Your task to perform on an android device: Open calendar and show me the fourth week of next month Image 0: 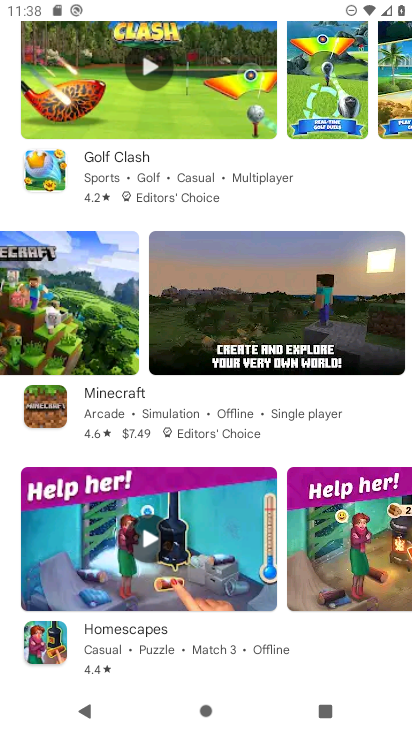
Step 0: press home button
Your task to perform on an android device: Open calendar and show me the fourth week of next month Image 1: 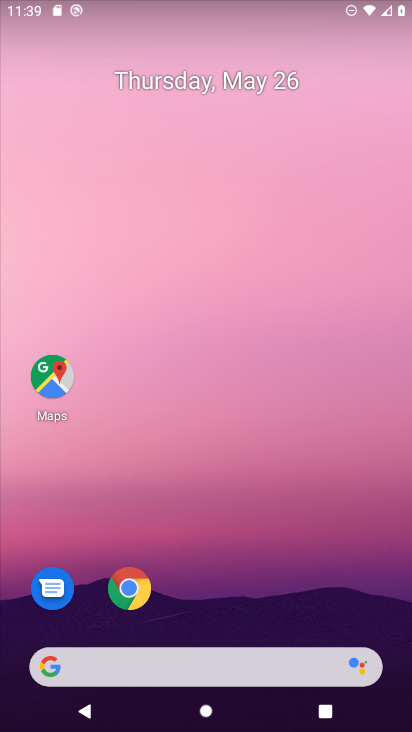
Step 1: drag from (356, 600) to (318, 39)
Your task to perform on an android device: Open calendar and show me the fourth week of next month Image 2: 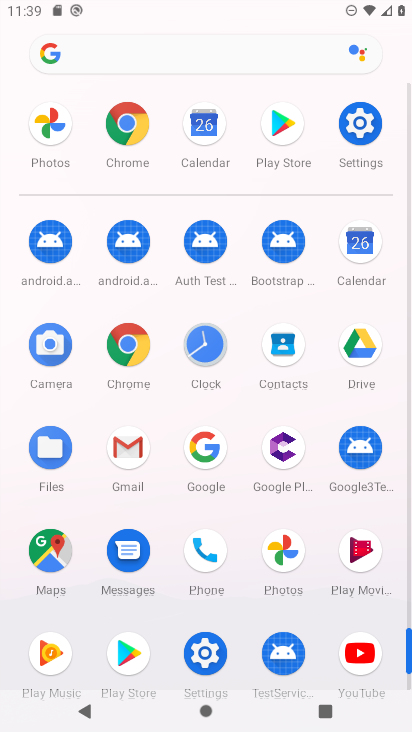
Step 2: click (358, 243)
Your task to perform on an android device: Open calendar and show me the fourth week of next month Image 3: 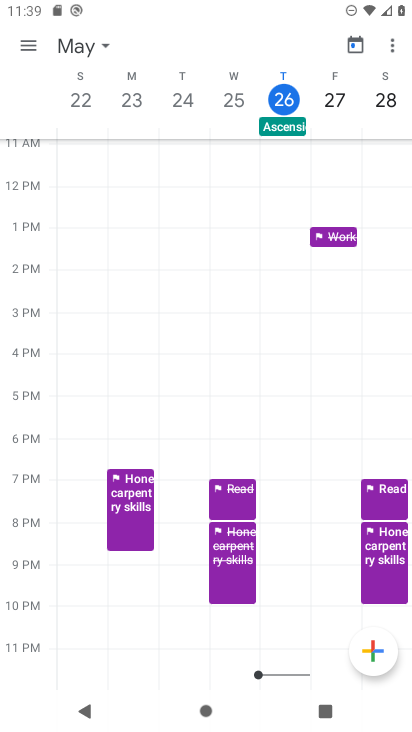
Step 3: click (25, 44)
Your task to perform on an android device: Open calendar and show me the fourth week of next month Image 4: 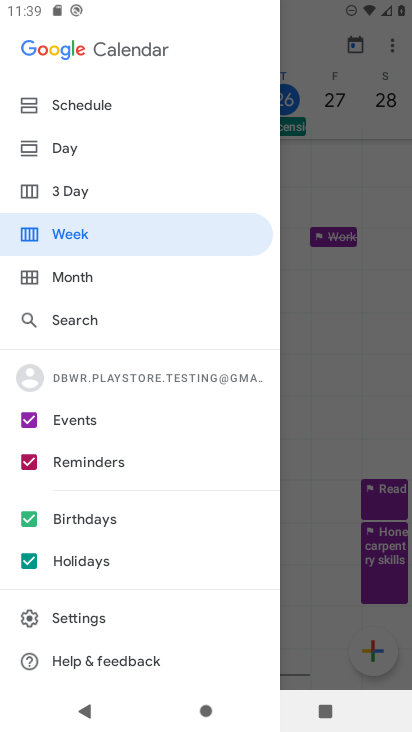
Step 4: click (95, 235)
Your task to perform on an android device: Open calendar and show me the fourth week of next month Image 5: 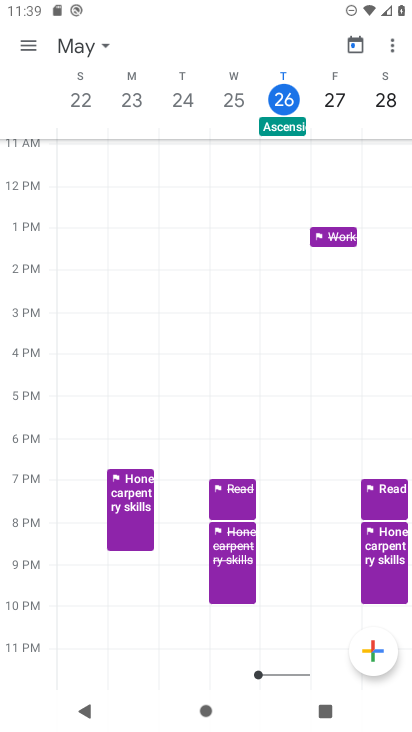
Step 5: click (107, 46)
Your task to perform on an android device: Open calendar and show me the fourth week of next month Image 6: 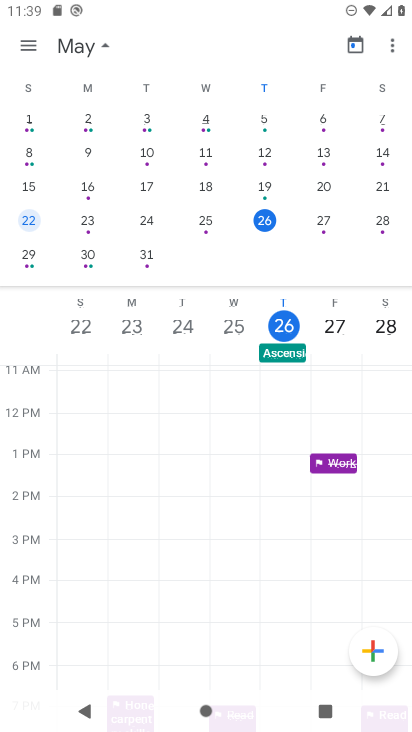
Step 6: drag from (387, 184) to (97, 173)
Your task to perform on an android device: Open calendar and show me the fourth week of next month Image 7: 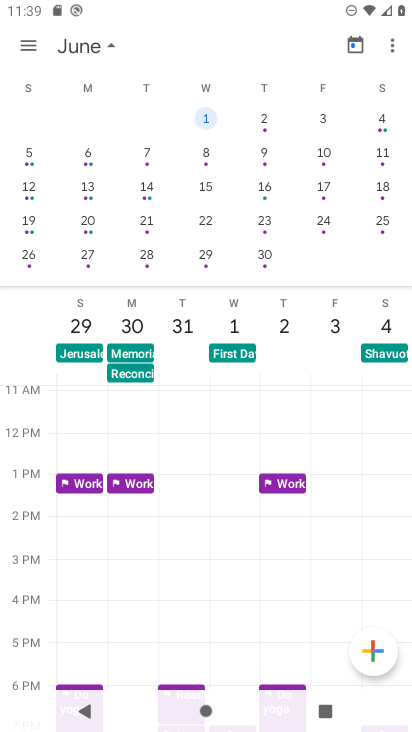
Step 7: click (30, 259)
Your task to perform on an android device: Open calendar and show me the fourth week of next month Image 8: 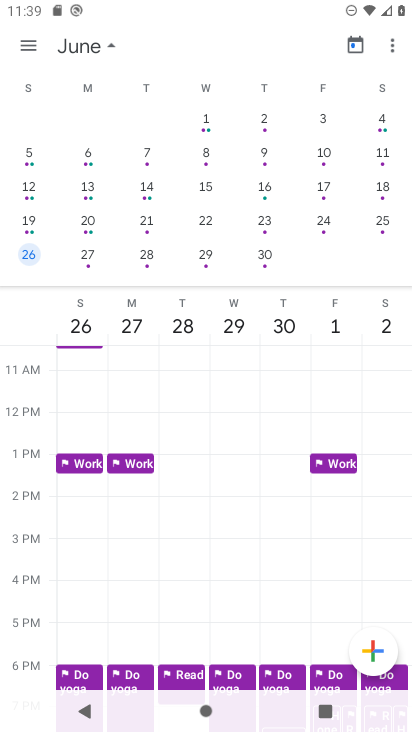
Step 8: task complete